Your task to perform on an android device: Open the stopwatch Image 0: 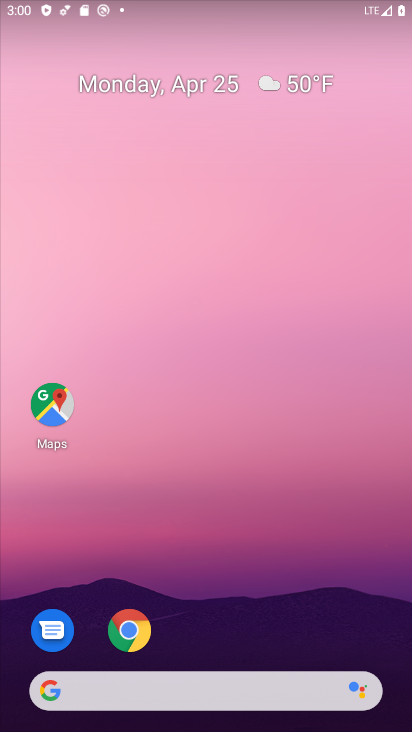
Step 0: drag from (212, 523) to (217, 53)
Your task to perform on an android device: Open the stopwatch Image 1: 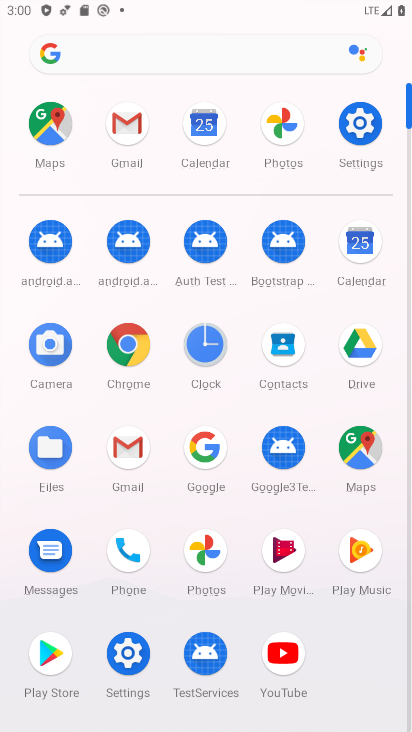
Step 1: click (220, 350)
Your task to perform on an android device: Open the stopwatch Image 2: 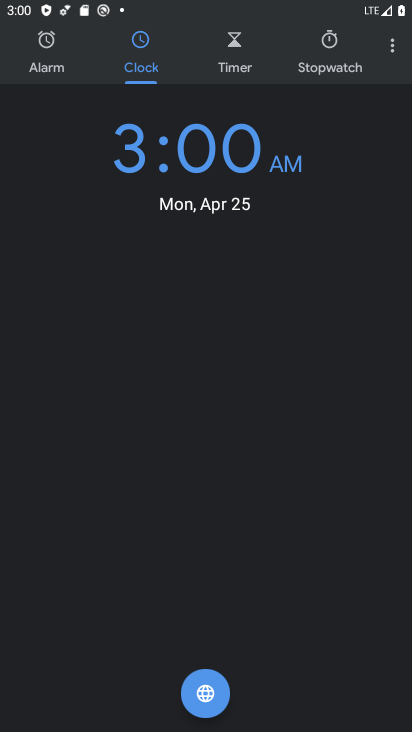
Step 2: click (328, 47)
Your task to perform on an android device: Open the stopwatch Image 3: 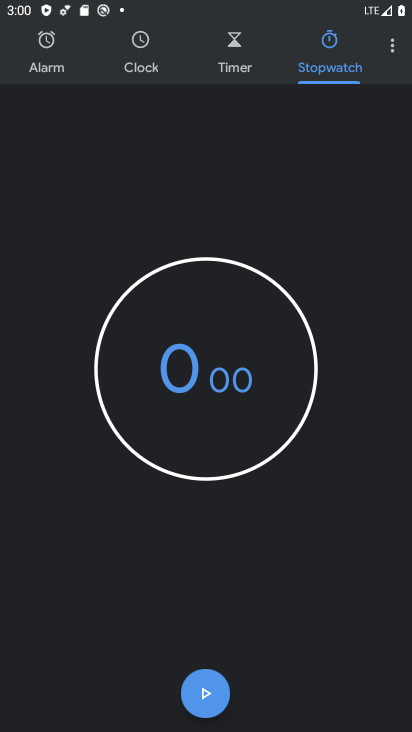
Step 3: task complete